Your task to perform on an android device: turn off sleep mode Image 0: 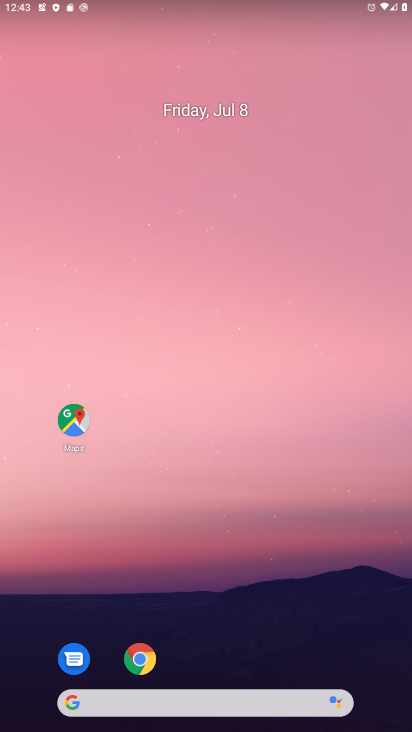
Step 0: drag from (282, 569) to (197, 193)
Your task to perform on an android device: turn off sleep mode Image 1: 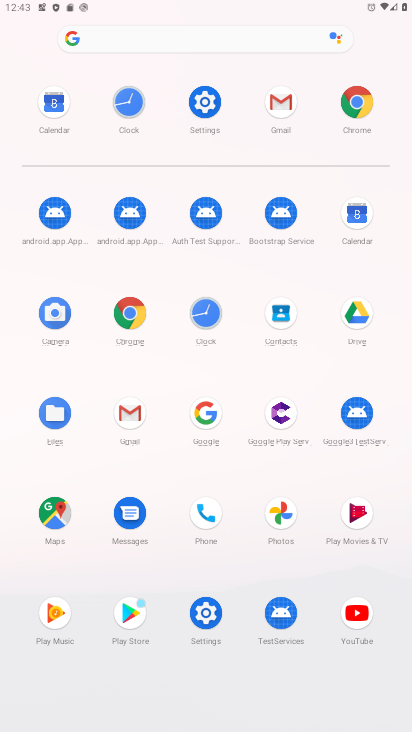
Step 1: click (200, 98)
Your task to perform on an android device: turn off sleep mode Image 2: 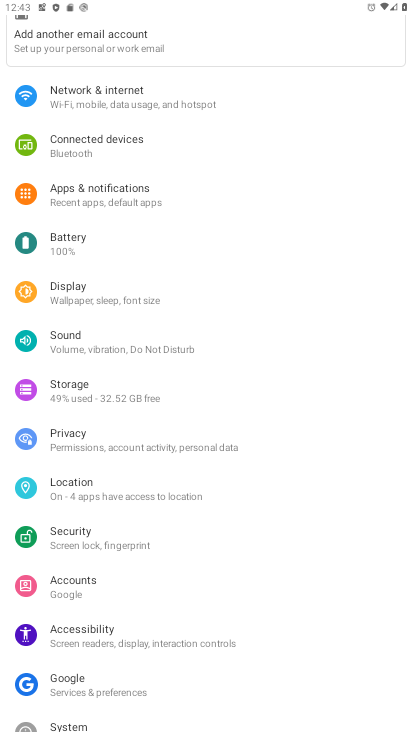
Step 2: click (72, 287)
Your task to perform on an android device: turn off sleep mode Image 3: 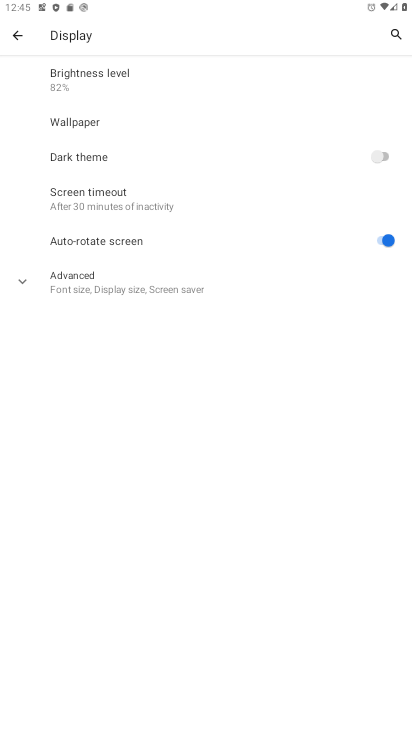
Step 3: task complete